Your task to perform on an android device: Open Amazon Image 0: 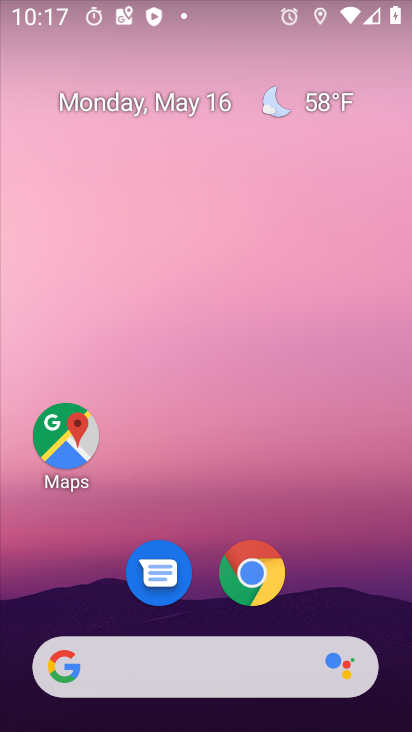
Step 0: drag from (323, 617) to (199, 179)
Your task to perform on an android device: Open Amazon Image 1: 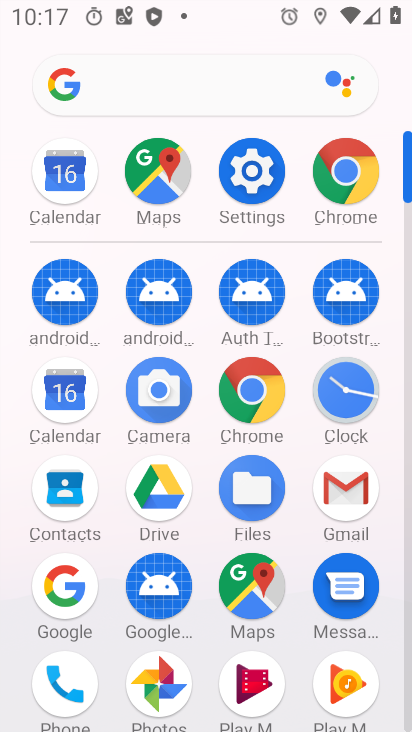
Step 1: click (349, 153)
Your task to perform on an android device: Open Amazon Image 2: 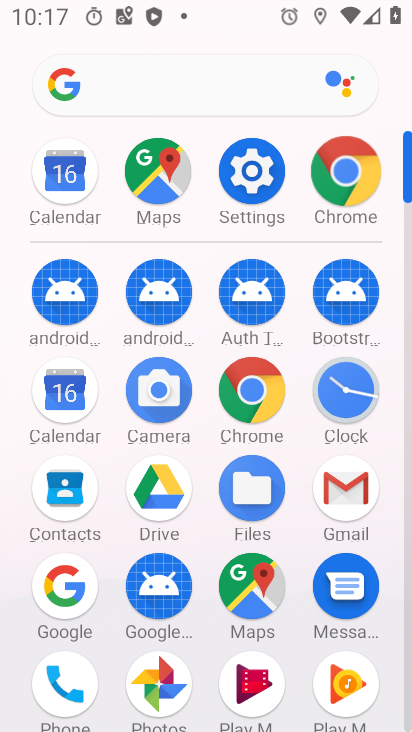
Step 2: click (350, 153)
Your task to perform on an android device: Open Amazon Image 3: 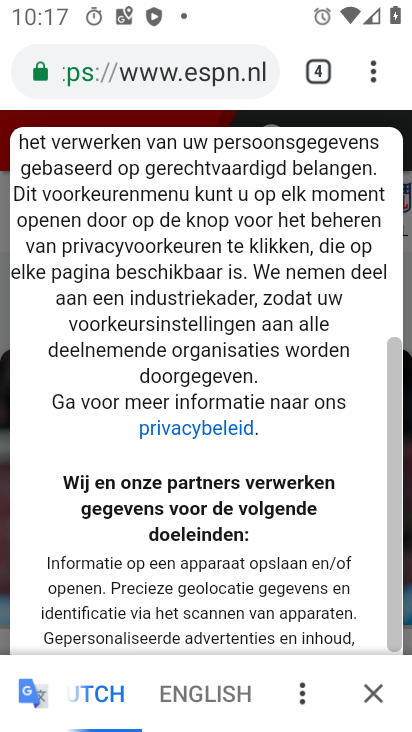
Step 3: drag from (369, 75) to (109, 137)
Your task to perform on an android device: Open Amazon Image 4: 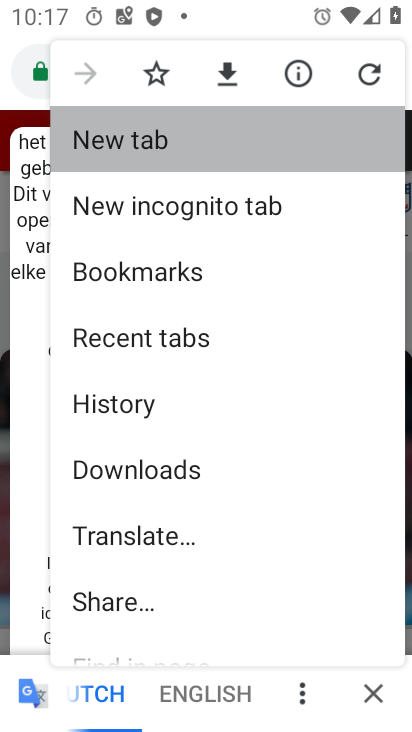
Step 4: click (109, 137)
Your task to perform on an android device: Open Amazon Image 5: 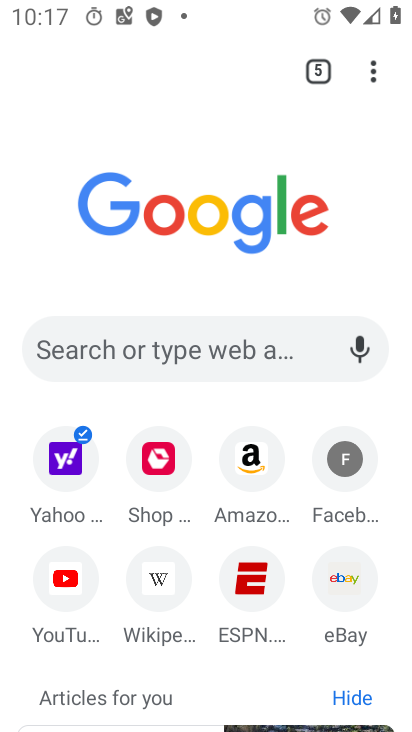
Step 5: click (265, 453)
Your task to perform on an android device: Open Amazon Image 6: 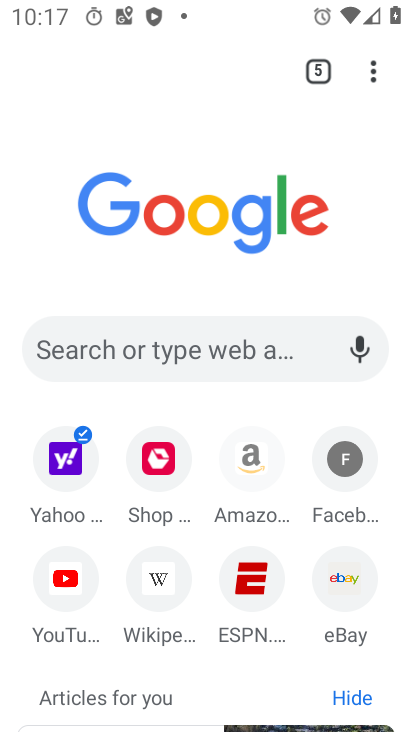
Step 6: click (265, 453)
Your task to perform on an android device: Open Amazon Image 7: 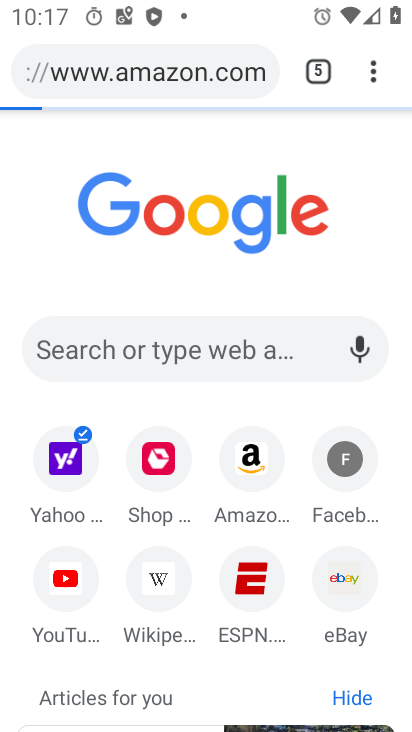
Step 7: click (265, 453)
Your task to perform on an android device: Open Amazon Image 8: 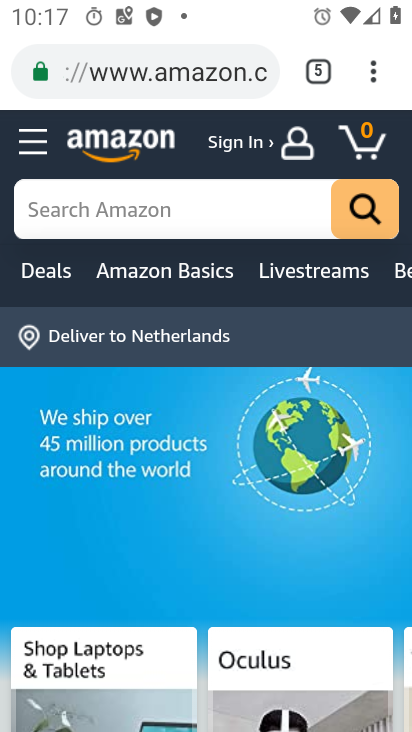
Step 8: task complete